Your task to perform on an android device: change alarm snooze length Image 0: 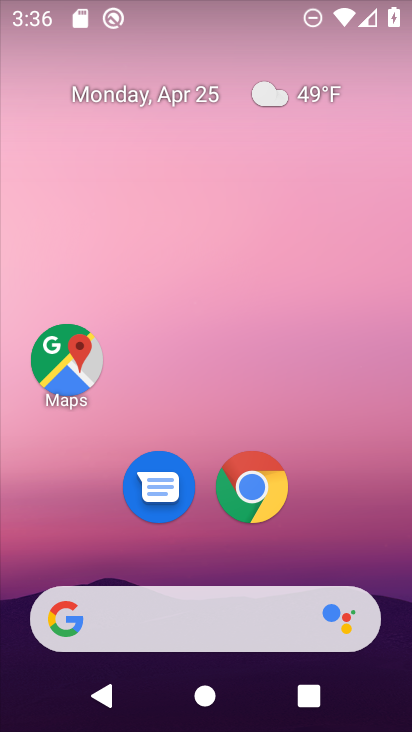
Step 0: drag from (376, 569) to (396, 116)
Your task to perform on an android device: change alarm snooze length Image 1: 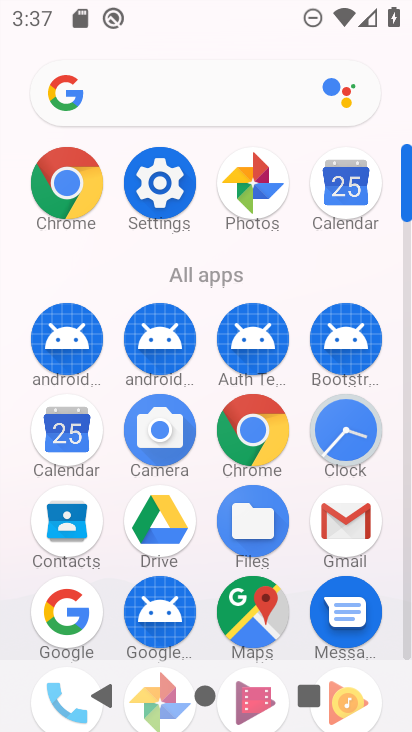
Step 1: click (342, 446)
Your task to perform on an android device: change alarm snooze length Image 2: 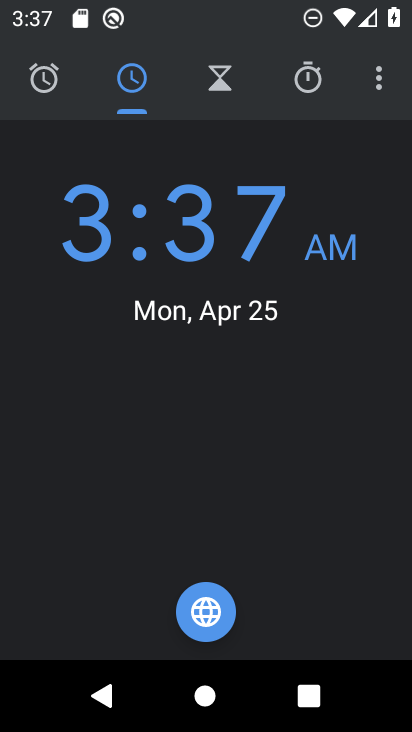
Step 2: click (380, 92)
Your task to perform on an android device: change alarm snooze length Image 3: 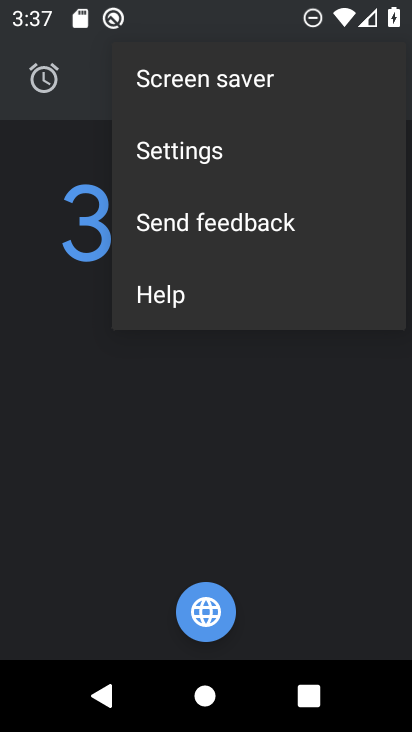
Step 3: click (181, 157)
Your task to perform on an android device: change alarm snooze length Image 4: 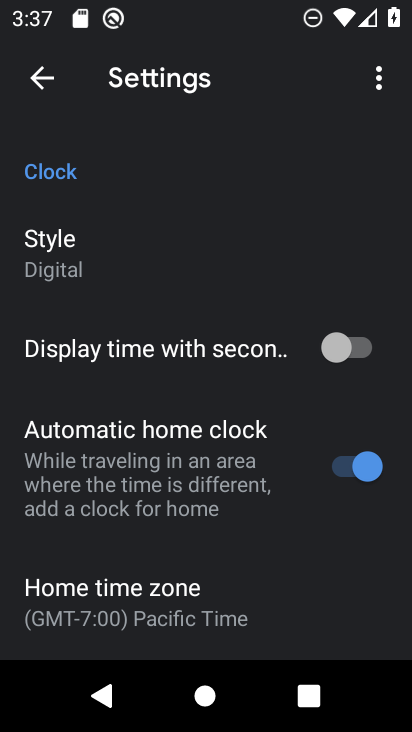
Step 4: drag from (273, 506) to (234, 150)
Your task to perform on an android device: change alarm snooze length Image 5: 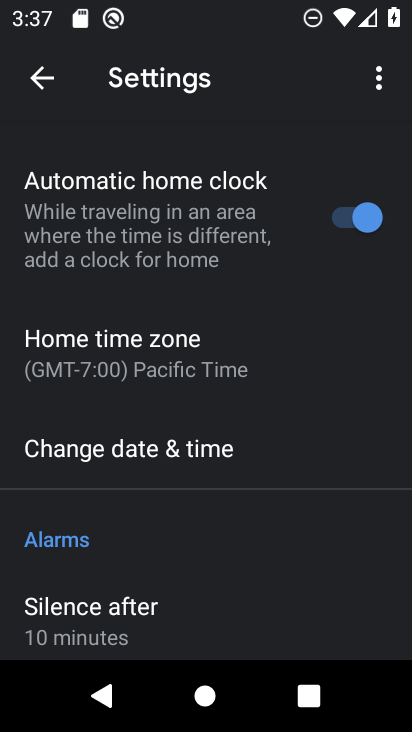
Step 5: drag from (240, 555) to (222, 184)
Your task to perform on an android device: change alarm snooze length Image 6: 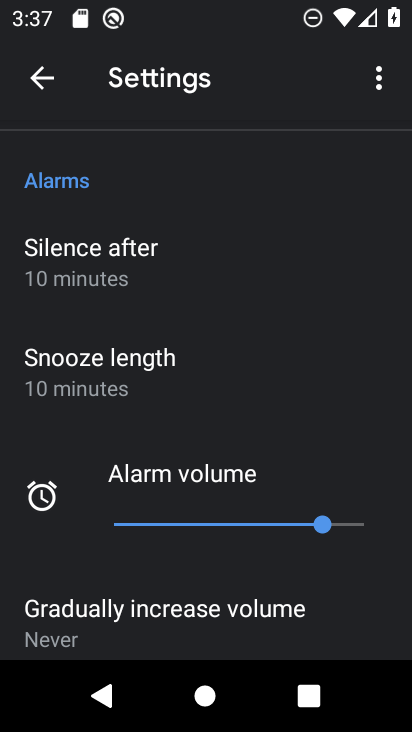
Step 6: click (76, 372)
Your task to perform on an android device: change alarm snooze length Image 7: 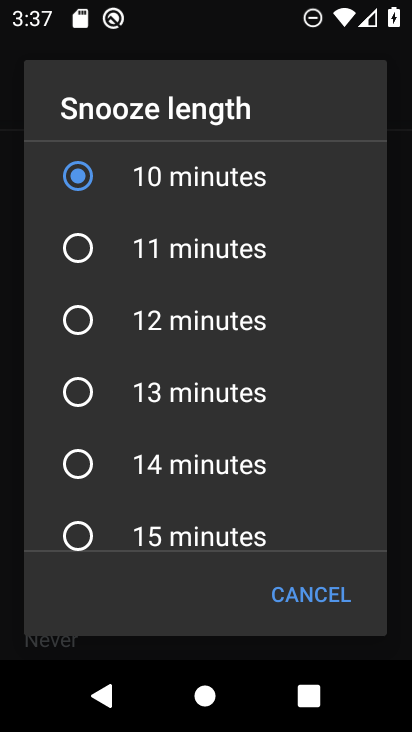
Step 7: click (75, 251)
Your task to perform on an android device: change alarm snooze length Image 8: 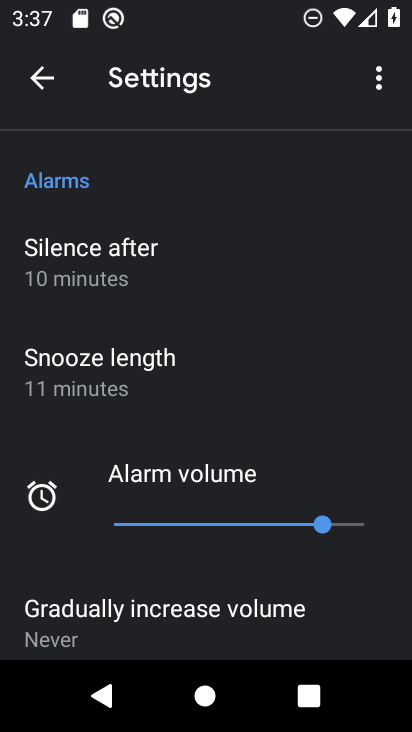
Step 8: task complete